Your task to perform on an android device: toggle translation in the chrome app Image 0: 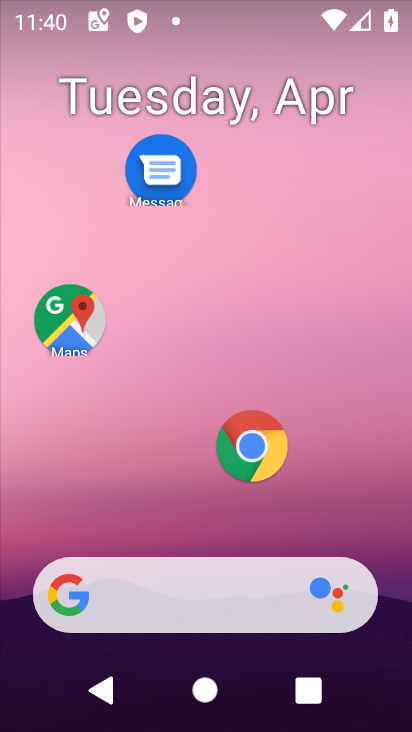
Step 0: drag from (218, 641) to (233, 68)
Your task to perform on an android device: toggle translation in the chrome app Image 1: 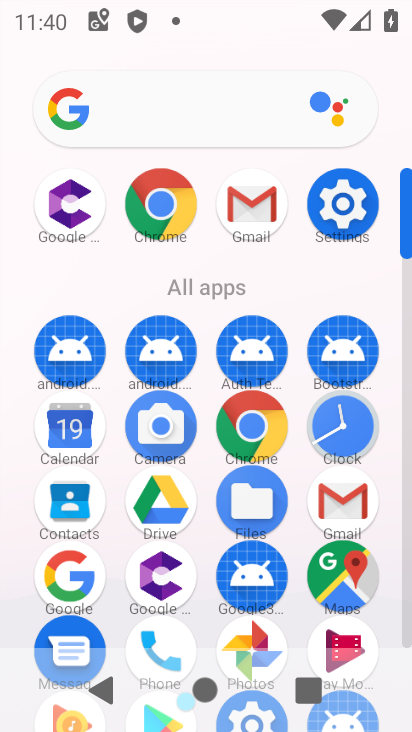
Step 1: click (253, 441)
Your task to perform on an android device: toggle translation in the chrome app Image 2: 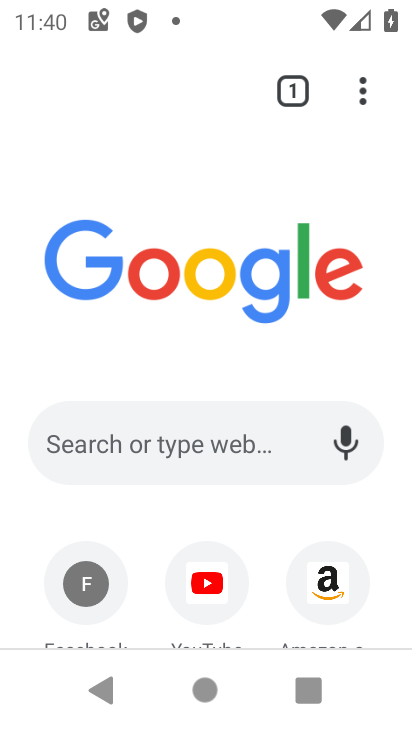
Step 2: click (357, 97)
Your task to perform on an android device: toggle translation in the chrome app Image 3: 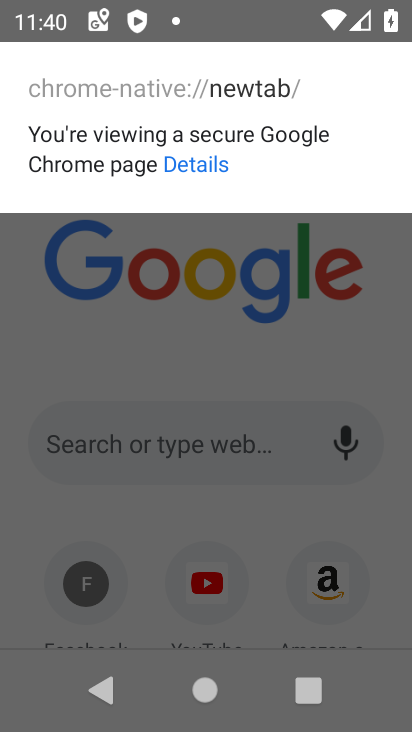
Step 3: click (376, 306)
Your task to perform on an android device: toggle translation in the chrome app Image 4: 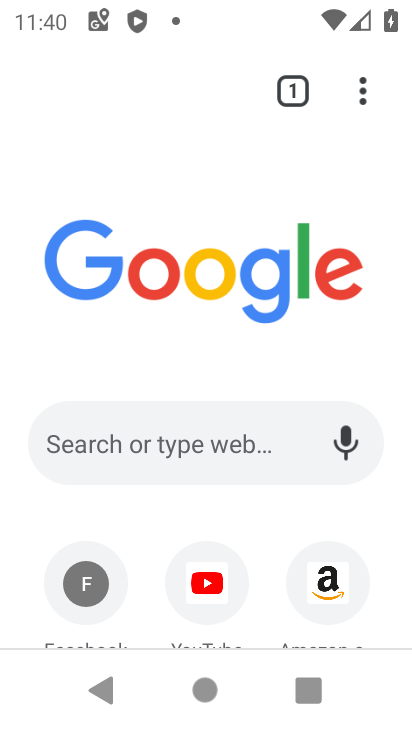
Step 4: click (362, 94)
Your task to perform on an android device: toggle translation in the chrome app Image 5: 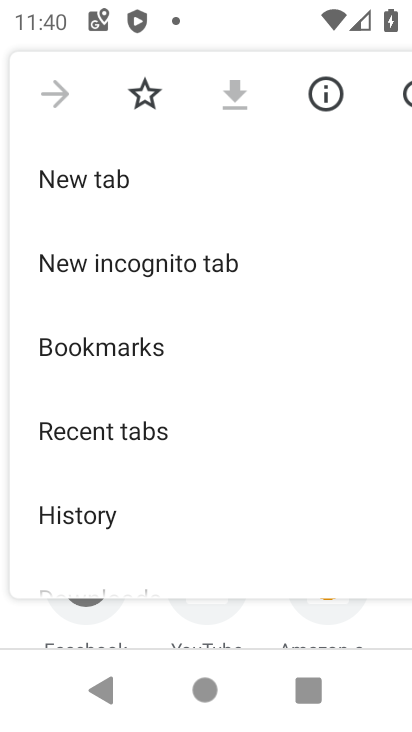
Step 5: drag from (149, 592) to (102, 174)
Your task to perform on an android device: toggle translation in the chrome app Image 6: 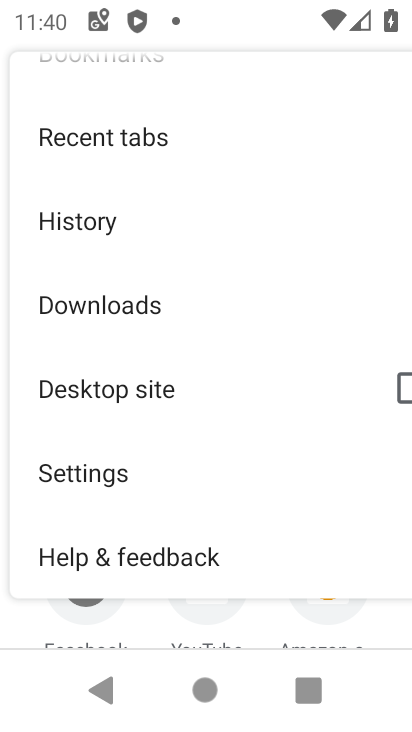
Step 6: click (137, 475)
Your task to perform on an android device: toggle translation in the chrome app Image 7: 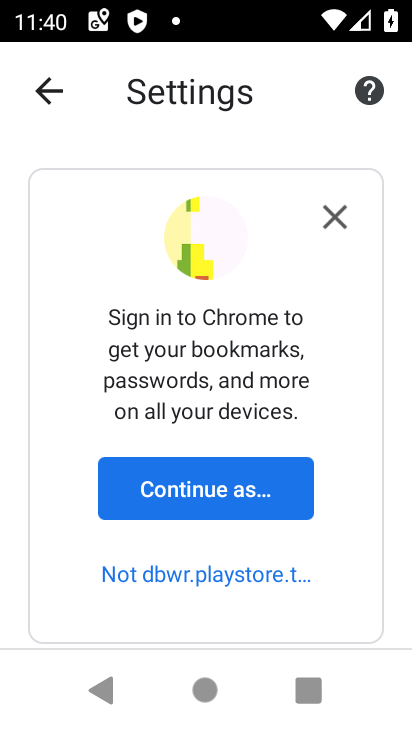
Step 7: drag from (148, 601) to (158, 181)
Your task to perform on an android device: toggle translation in the chrome app Image 8: 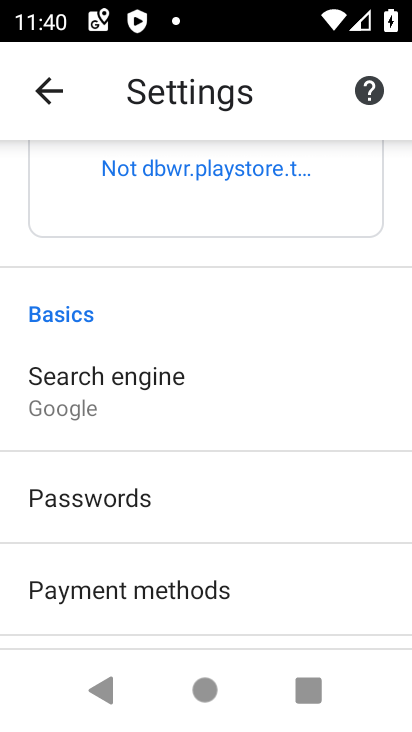
Step 8: drag from (135, 618) to (332, 256)
Your task to perform on an android device: toggle translation in the chrome app Image 9: 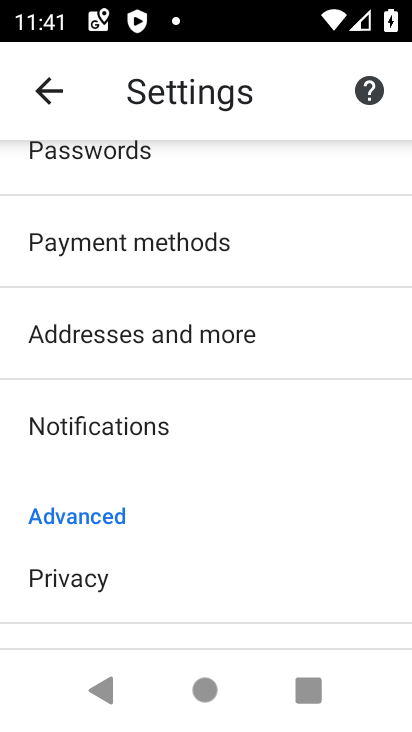
Step 9: drag from (215, 600) to (221, 184)
Your task to perform on an android device: toggle translation in the chrome app Image 10: 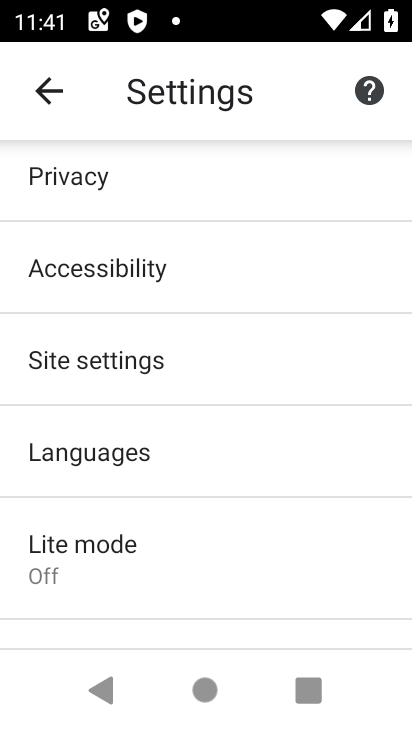
Step 10: click (184, 456)
Your task to perform on an android device: toggle translation in the chrome app Image 11: 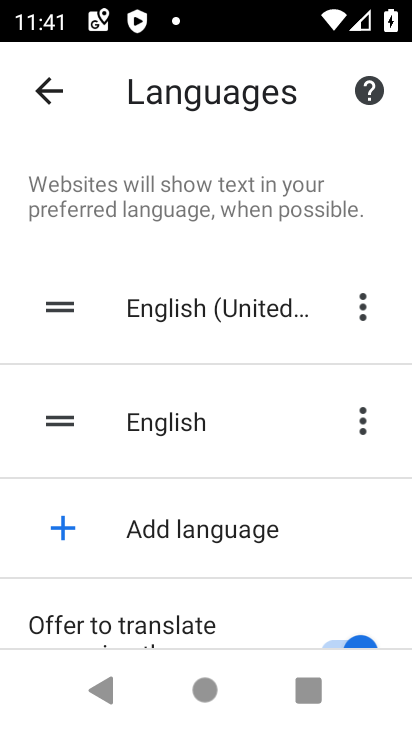
Step 11: drag from (263, 606) to (246, 243)
Your task to perform on an android device: toggle translation in the chrome app Image 12: 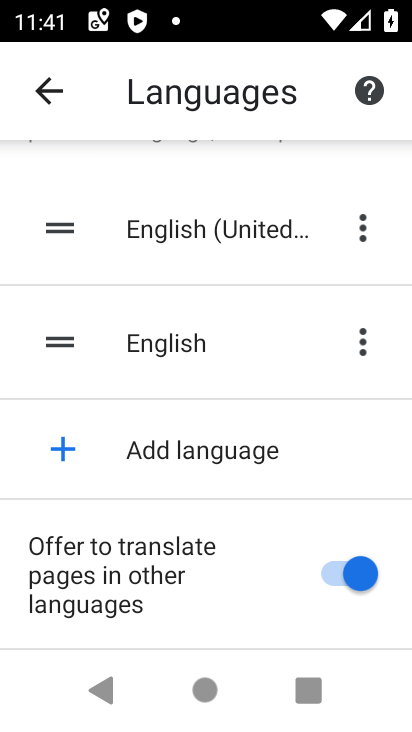
Step 12: click (342, 574)
Your task to perform on an android device: toggle translation in the chrome app Image 13: 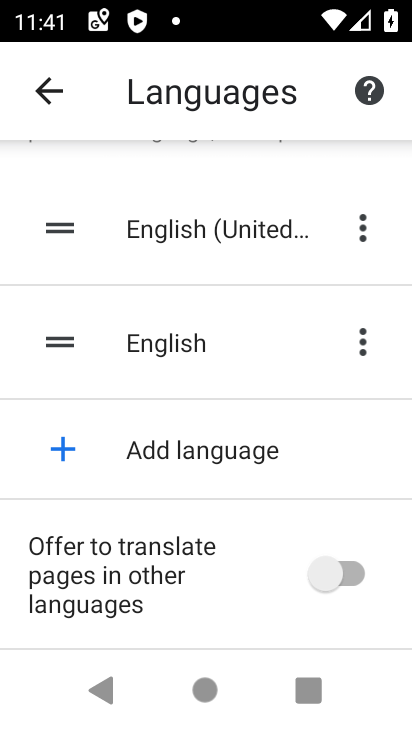
Step 13: task complete